Your task to perform on an android device: Set the phone to "Do not disturb". Image 0: 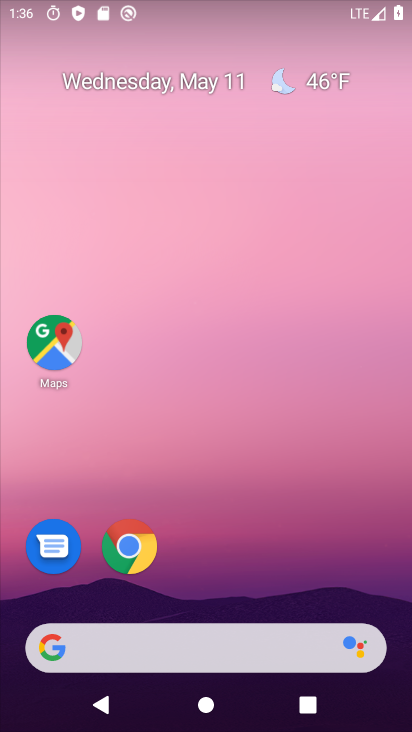
Step 0: drag from (279, 667) to (260, 281)
Your task to perform on an android device: Set the phone to "Do not disturb". Image 1: 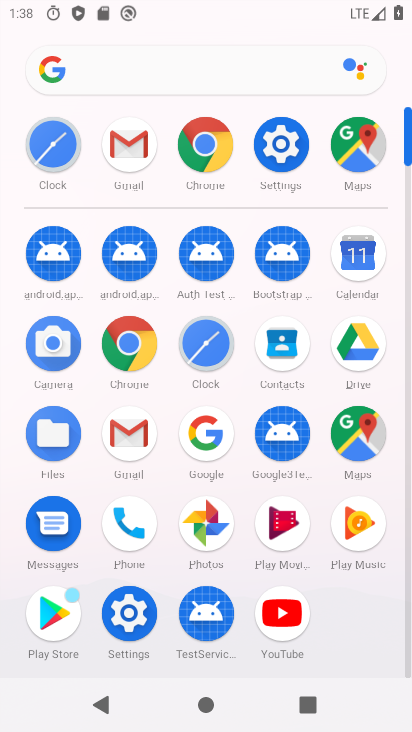
Step 1: click (271, 172)
Your task to perform on an android device: Set the phone to "Do not disturb". Image 2: 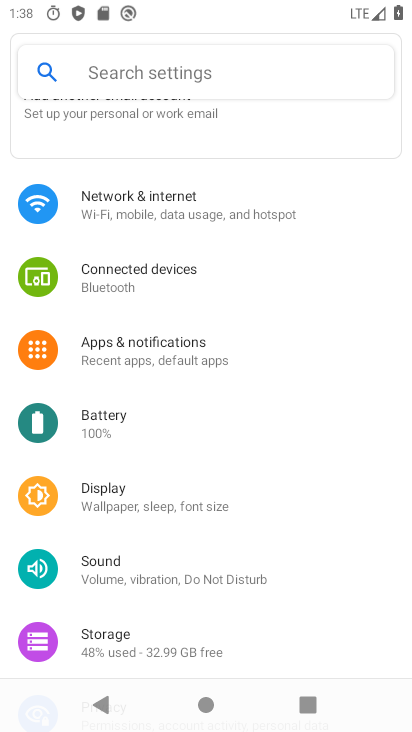
Step 2: click (157, 78)
Your task to perform on an android device: Set the phone to "Do not disturb". Image 3: 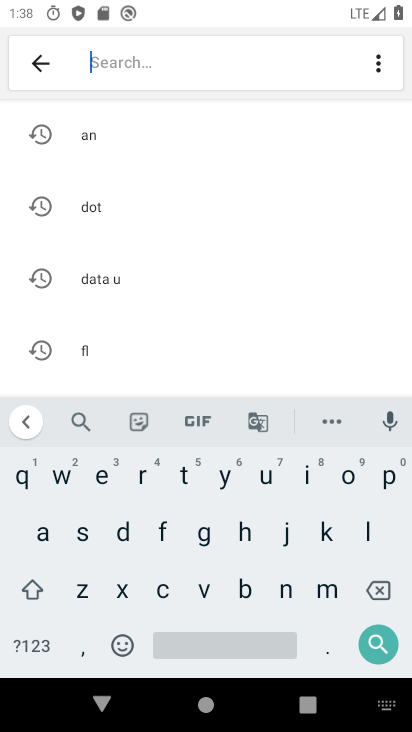
Step 3: click (123, 533)
Your task to perform on an android device: Set the phone to "Do not disturb". Image 4: 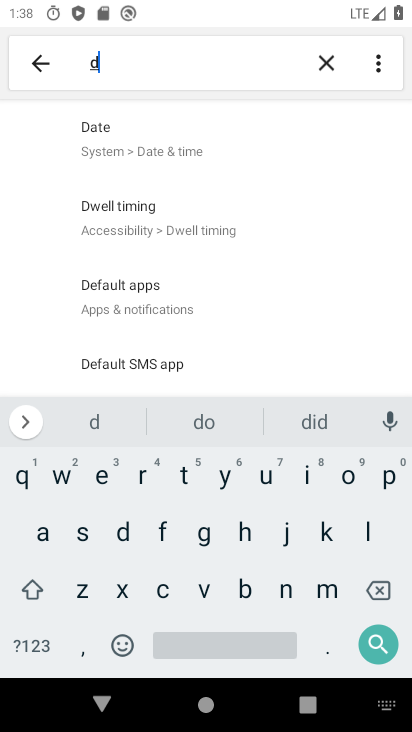
Step 4: click (285, 588)
Your task to perform on an android device: Set the phone to "Do not disturb". Image 5: 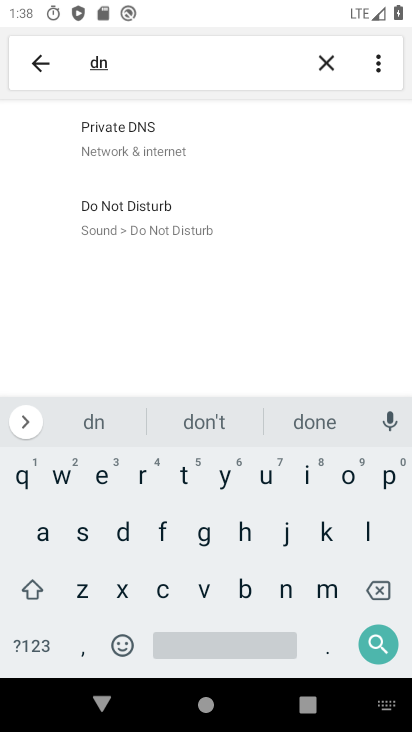
Step 5: click (137, 215)
Your task to perform on an android device: Set the phone to "Do not disturb". Image 6: 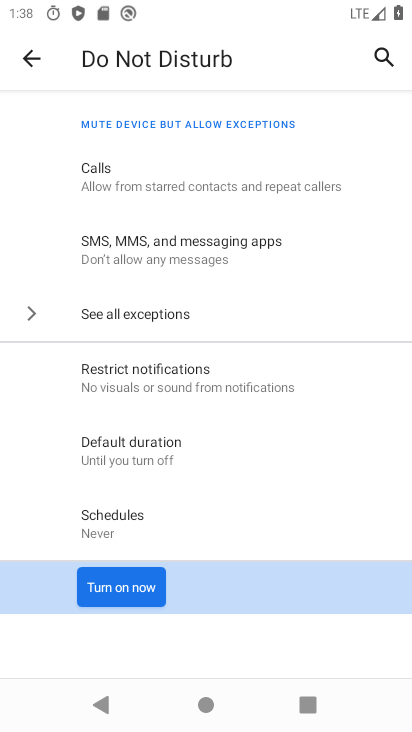
Step 6: click (102, 584)
Your task to perform on an android device: Set the phone to "Do not disturb". Image 7: 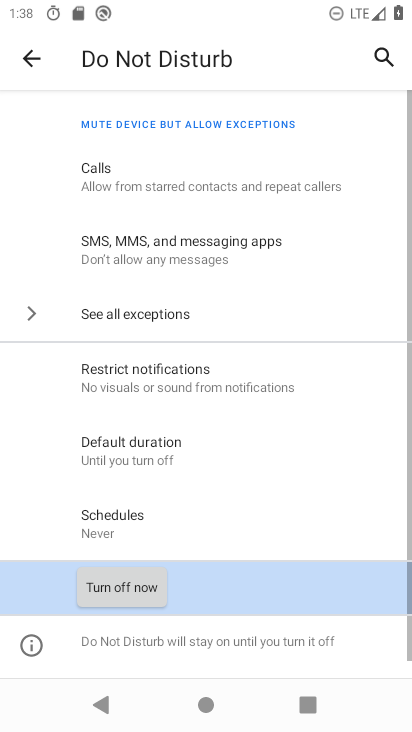
Step 7: task complete